Your task to perform on an android device: Open the Play Movies app and select the watchlist tab. Image 0: 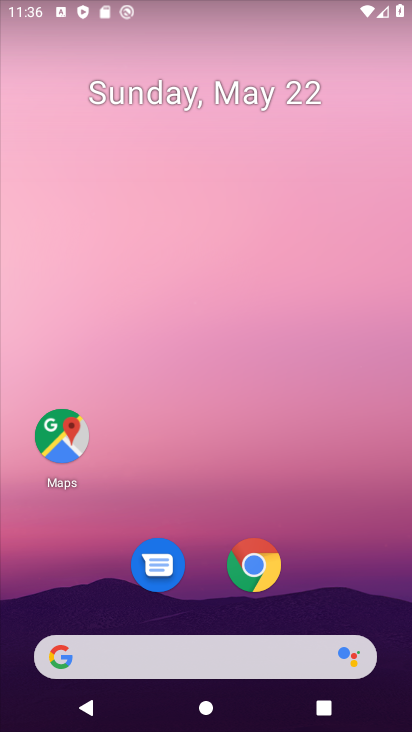
Step 0: drag from (220, 507) to (405, 52)
Your task to perform on an android device: Open the Play Movies app and select the watchlist tab. Image 1: 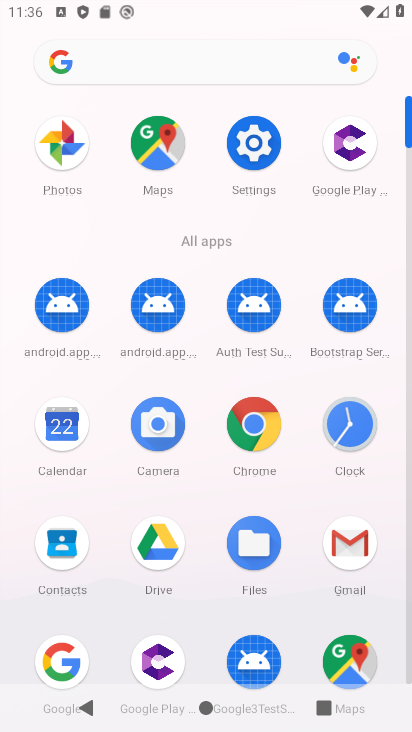
Step 1: drag from (290, 392) to (302, 188)
Your task to perform on an android device: Open the Play Movies app and select the watchlist tab. Image 2: 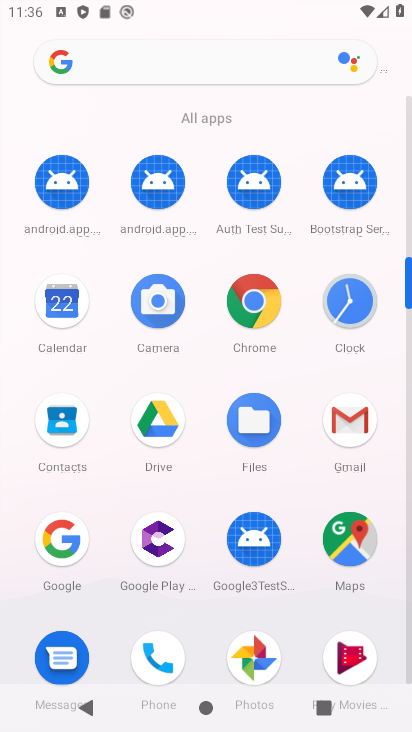
Step 2: click (360, 649)
Your task to perform on an android device: Open the Play Movies app and select the watchlist tab. Image 3: 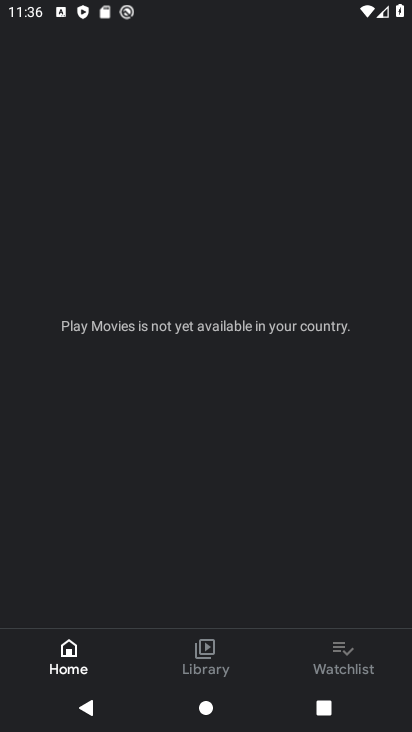
Step 3: click (359, 663)
Your task to perform on an android device: Open the Play Movies app and select the watchlist tab. Image 4: 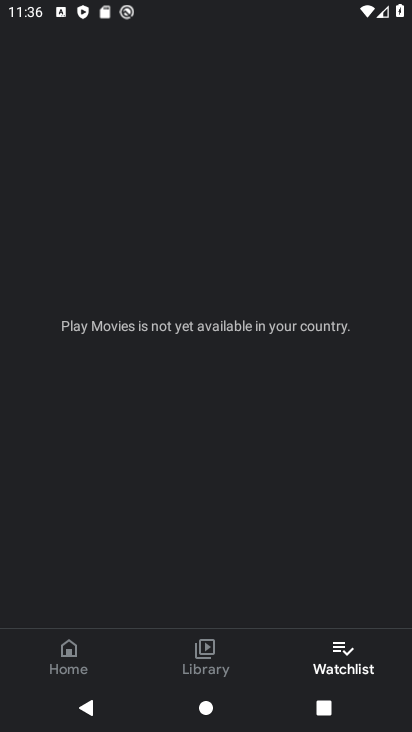
Step 4: task complete